Your task to perform on an android device: Go to Maps Image 0: 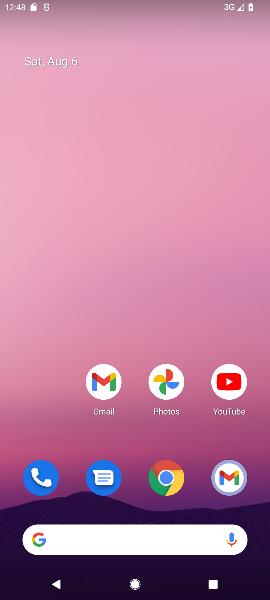
Step 0: drag from (146, 530) to (159, 308)
Your task to perform on an android device: Go to Maps Image 1: 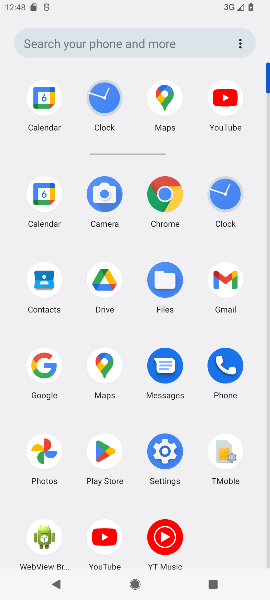
Step 1: click (105, 368)
Your task to perform on an android device: Go to Maps Image 2: 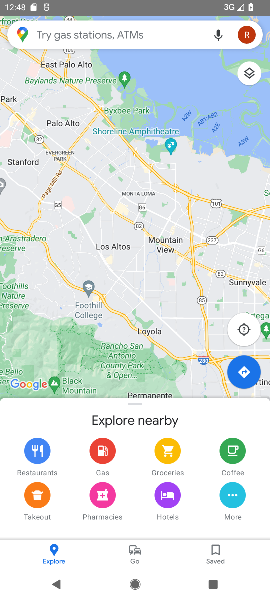
Step 2: click (120, 31)
Your task to perform on an android device: Go to Maps Image 3: 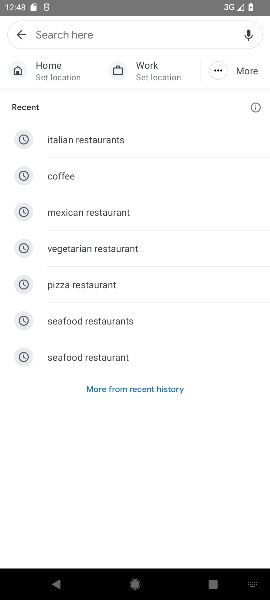
Step 3: click (17, 36)
Your task to perform on an android device: Go to Maps Image 4: 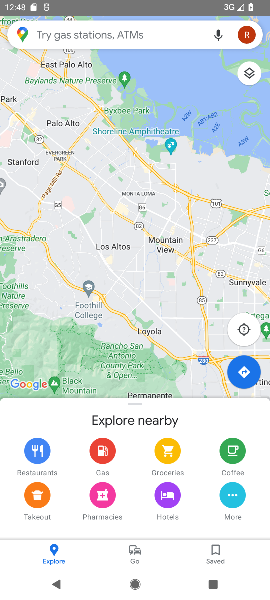
Step 4: task complete